Your task to perform on an android device: choose inbox layout in the gmail app Image 0: 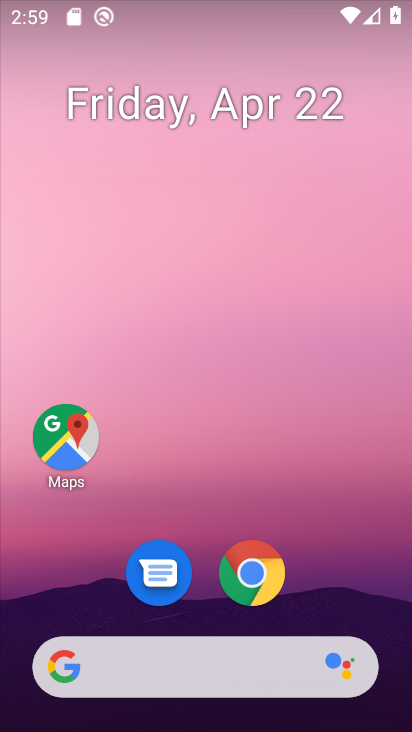
Step 0: drag from (200, 612) to (289, 84)
Your task to perform on an android device: choose inbox layout in the gmail app Image 1: 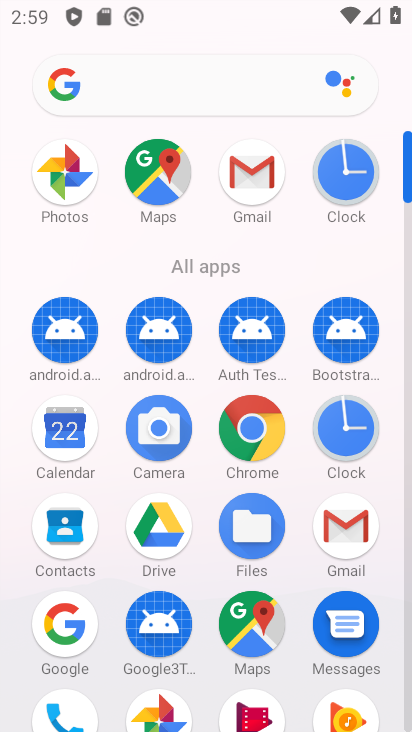
Step 1: click (343, 526)
Your task to perform on an android device: choose inbox layout in the gmail app Image 2: 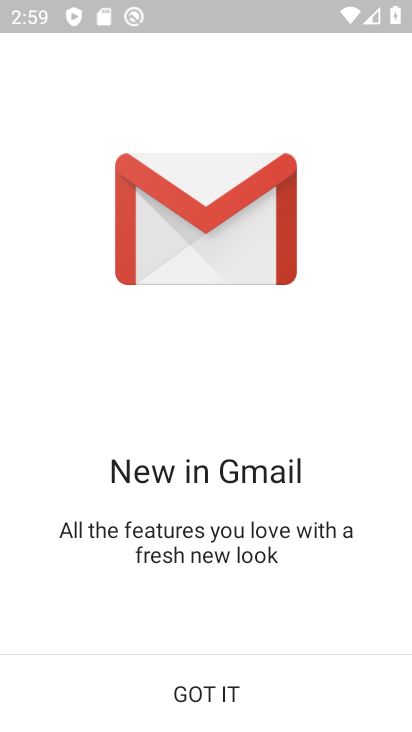
Step 2: click (219, 705)
Your task to perform on an android device: choose inbox layout in the gmail app Image 3: 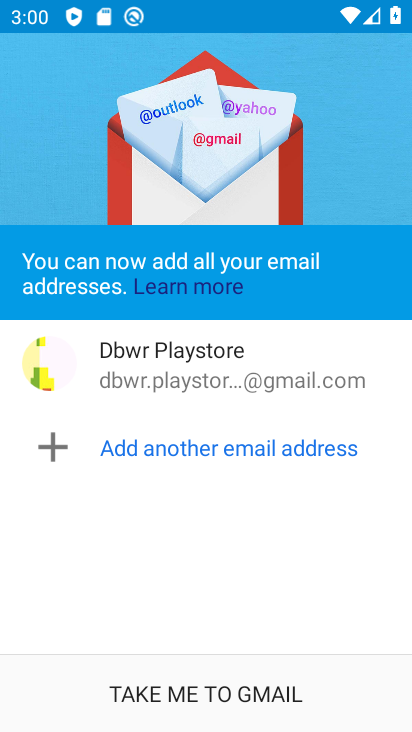
Step 3: click (290, 690)
Your task to perform on an android device: choose inbox layout in the gmail app Image 4: 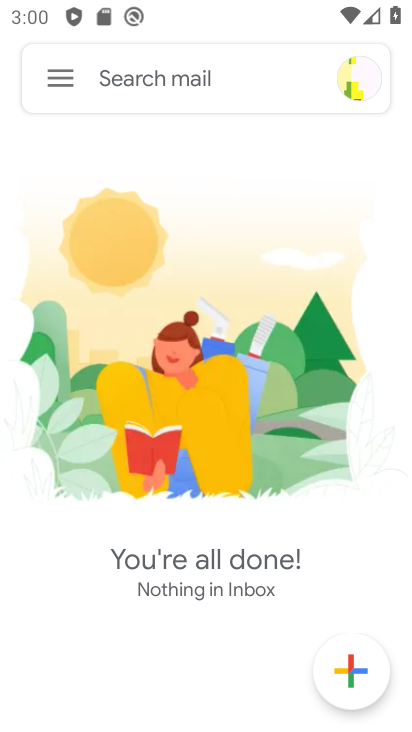
Step 4: click (56, 87)
Your task to perform on an android device: choose inbox layout in the gmail app Image 5: 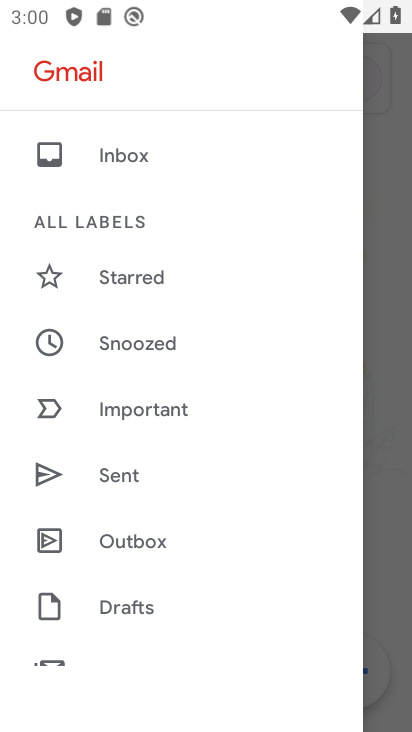
Step 5: drag from (183, 611) to (214, 99)
Your task to perform on an android device: choose inbox layout in the gmail app Image 6: 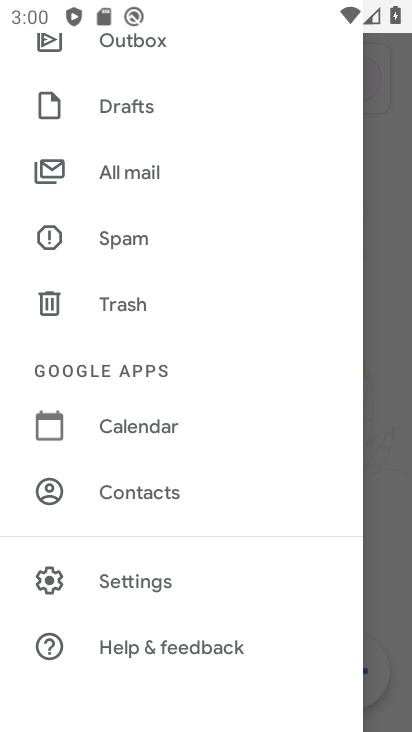
Step 6: click (202, 581)
Your task to perform on an android device: choose inbox layout in the gmail app Image 7: 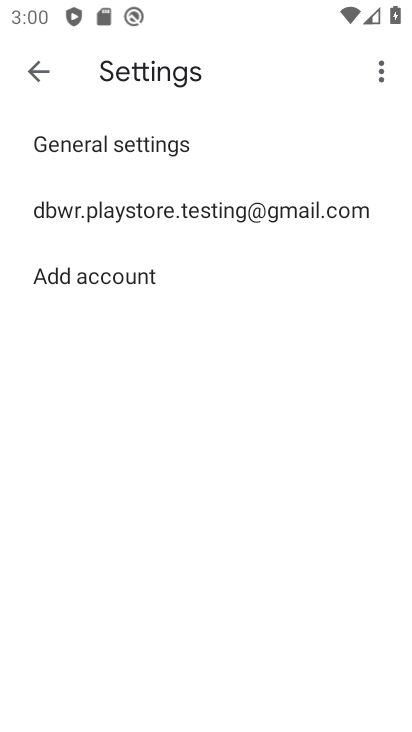
Step 7: click (124, 204)
Your task to perform on an android device: choose inbox layout in the gmail app Image 8: 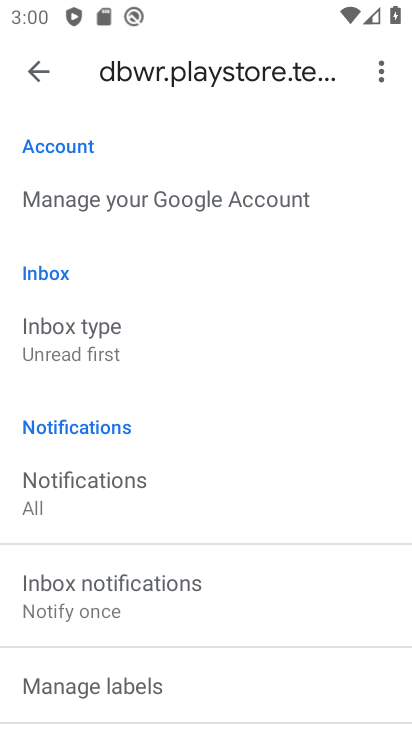
Step 8: click (122, 347)
Your task to perform on an android device: choose inbox layout in the gmail app Image 9: 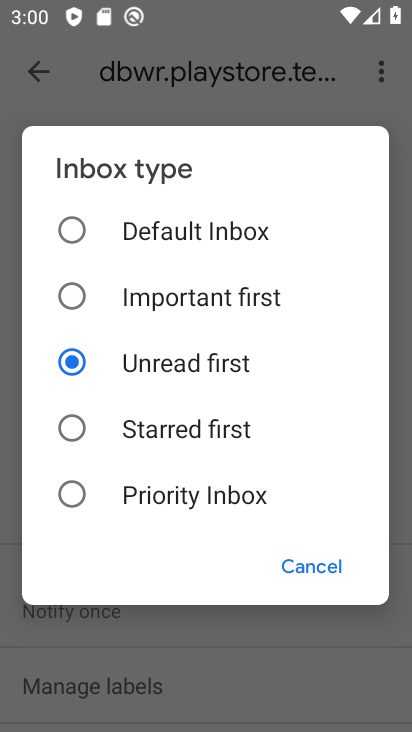
Step 9: task complete